Your task to perform on an android device: View the shopping cart on bestbuy.com. Add "usb-a" to the cart on bestbuy.com Image 0: 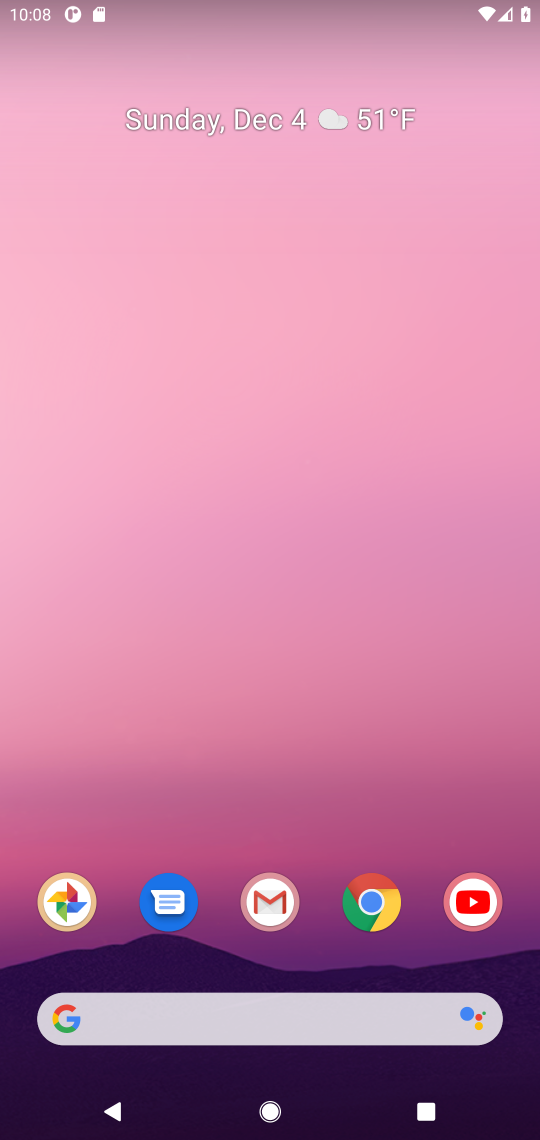
Step 0: click (368, 901)
Your task to perform on an android device: View the shopping cart on bestbuy.com. Add "usb-a" to the cart on bestbuy.com Image 1: 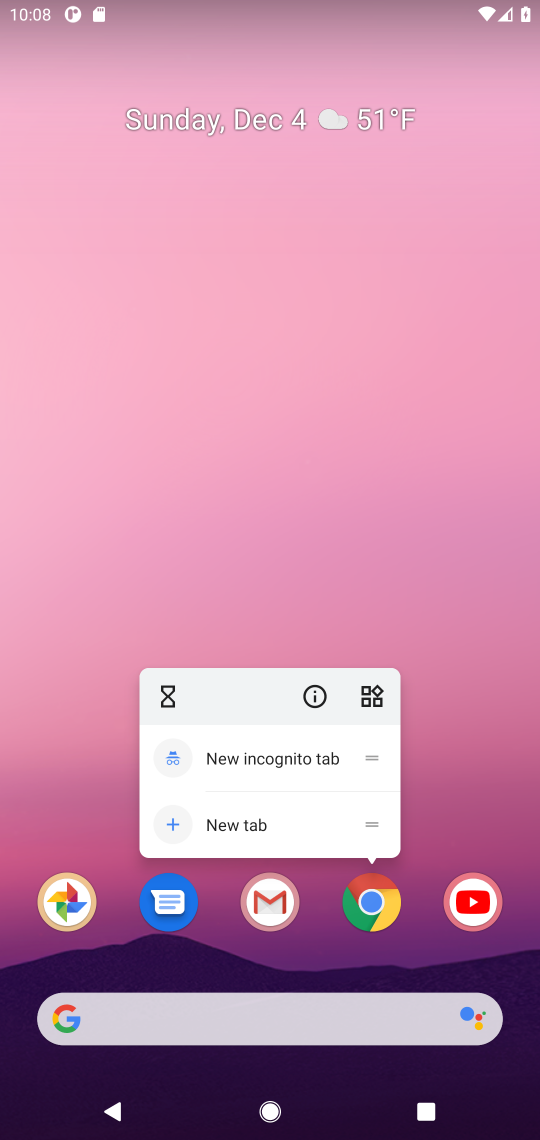
Step 1: click (382, 908)
Your task to perform on an android device: View the shopping cart on bestbuy.com. Add "usb-a" to the cart on bestbuy.com Image 2: 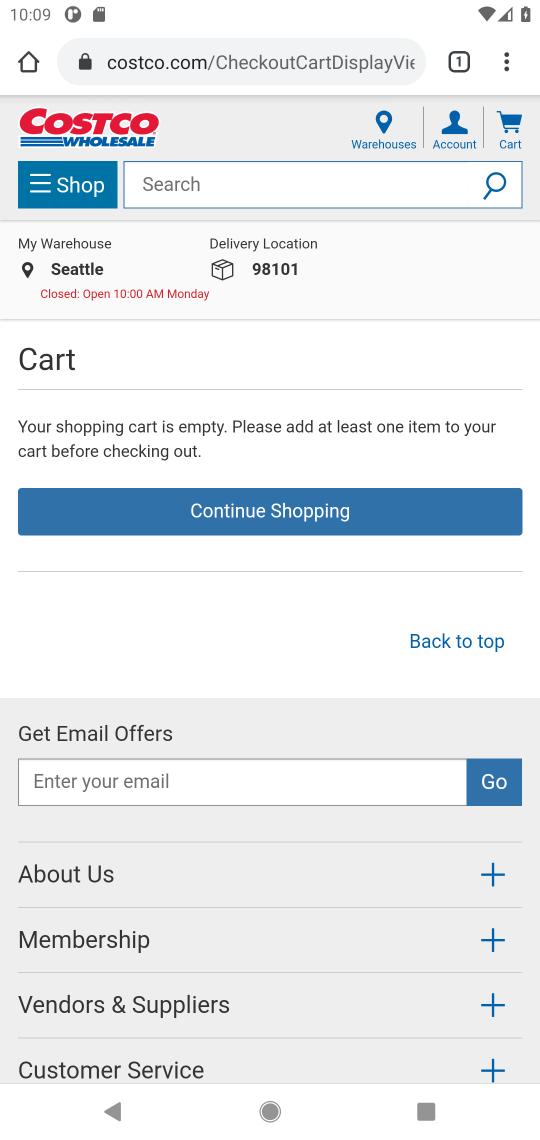
Step 2: click (494, 131)
Your task to perform on an android device: View the shopping cart on bestbuy.com. Add "usb-a" to the cart on bestbuy.com Image 3: 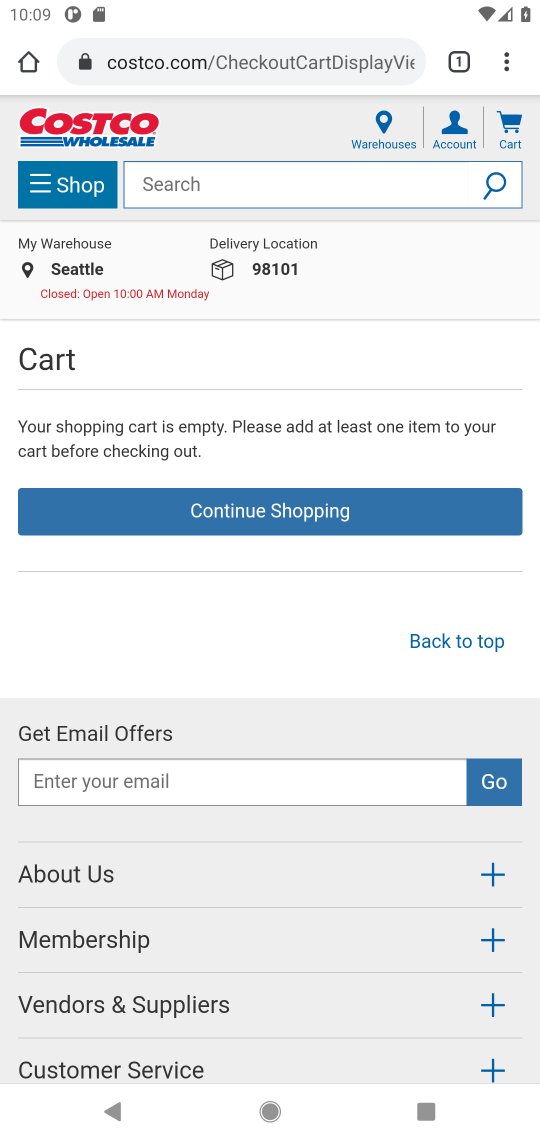
Step 3: click (260, 52)
Your task to perform on an android device: View the shopping cart on bestbuy.com. Add "usb-a" to the cart on bestbuy.com Image 4: 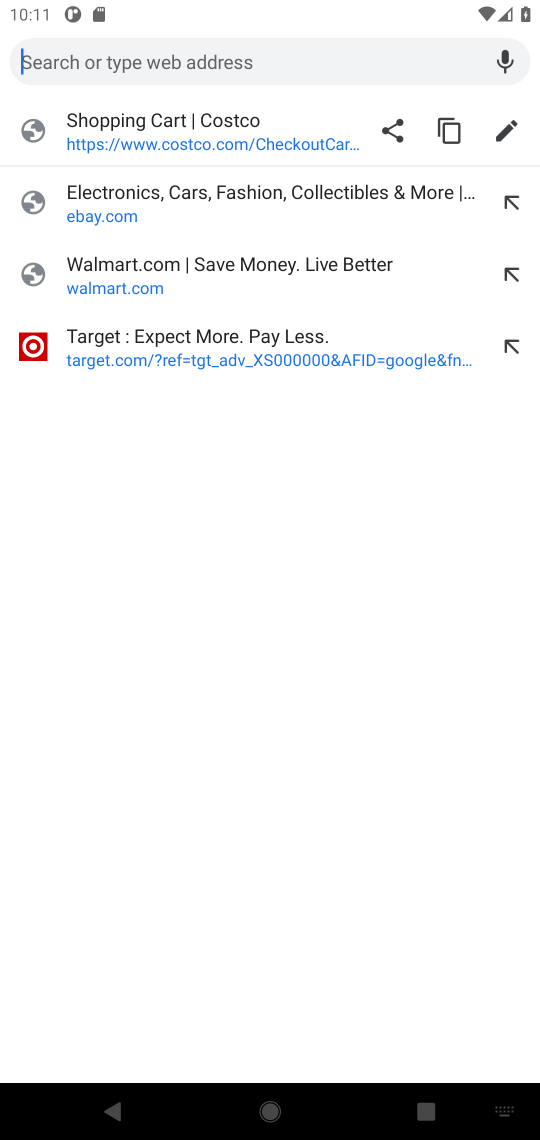
Step 4: type "bestbuy"
Your task to perform on an android device: View the shopping cart on bestbuy.com. Add "usb-a" to the cart on bestbuy.com Image 5: 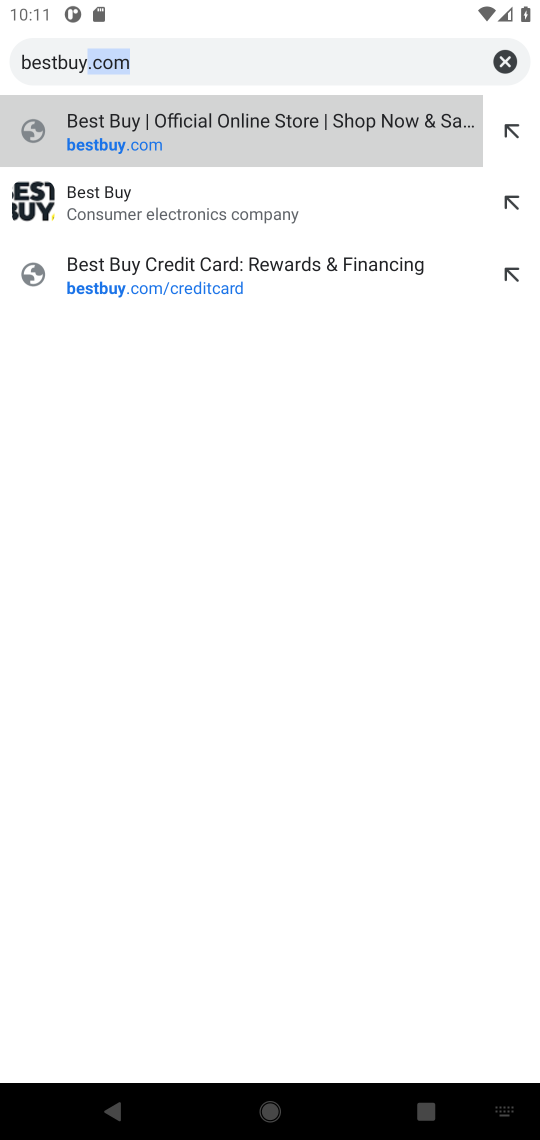
Step 5: click (182, 150)
Your task to perform on an android device: View the shopping cart on bestbuy.com. Add "usb-a" to the cart on bestbuy.com Image 6: 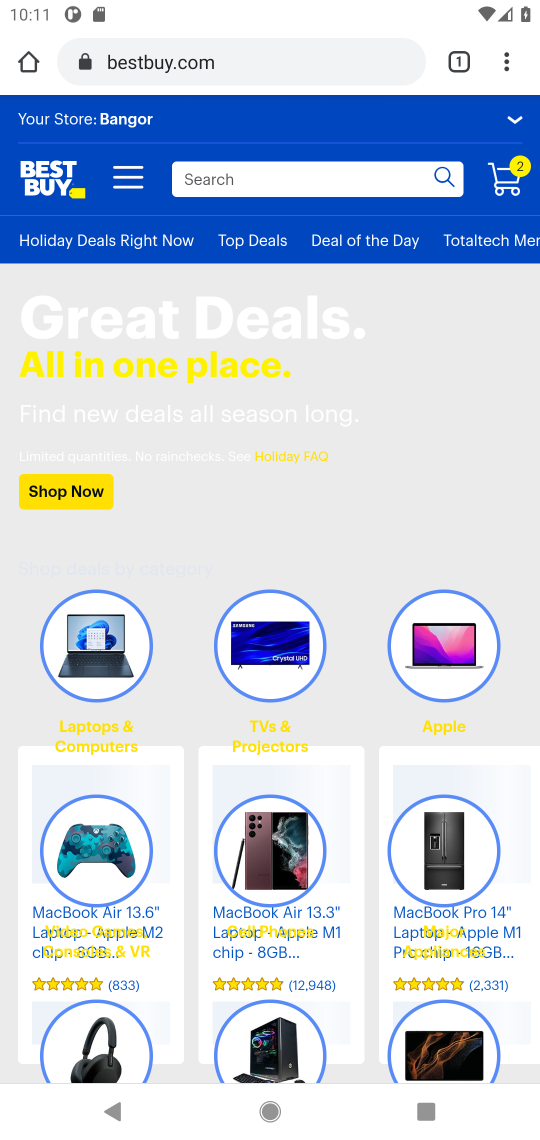
Step 6: click (523, 172)
Your task to perform on an android device: View the shopping cart on bestbuy.com. Add "usb-a" to the cart on bestbuy.com Image 7: 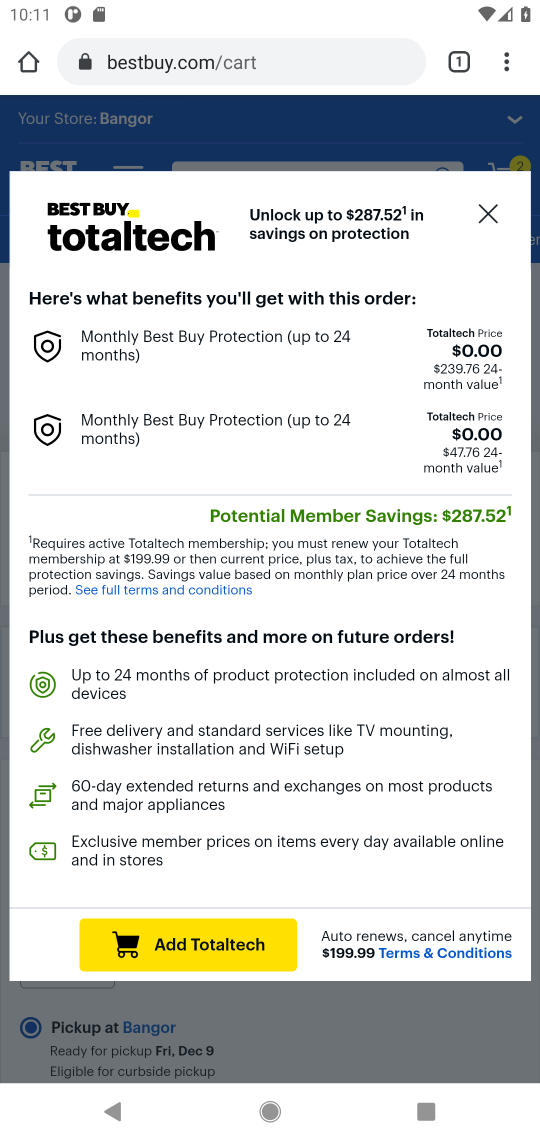
Step 7: click (485, 225)
Your task to perform on an android device: View the shopping cart on bestbuy.com. Add "usb-a" to the cart on bestbuy.com Image 8: 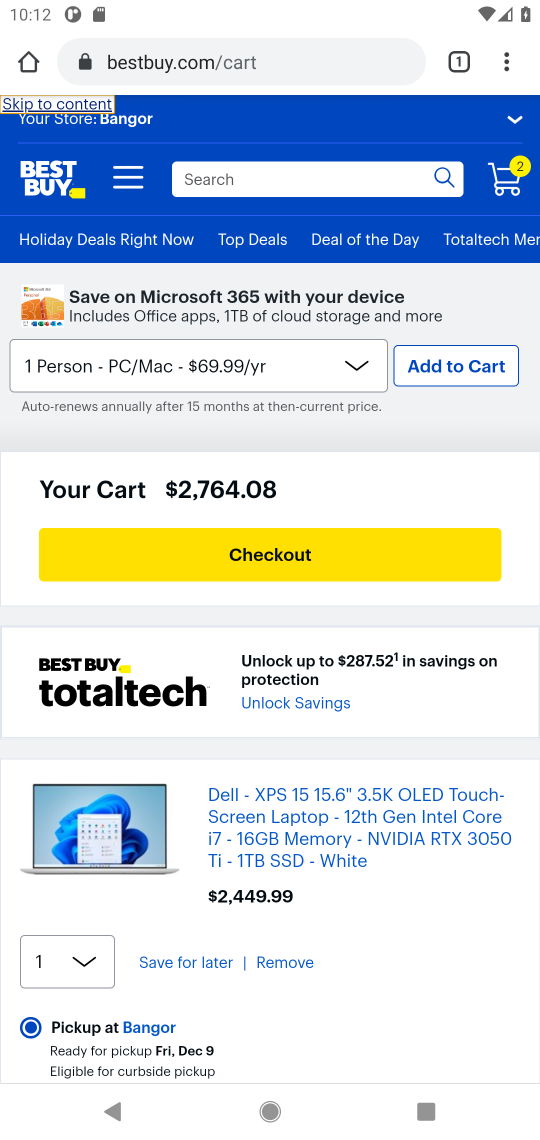
Step 8: click (243, 185)
Your task to perform on an android device: View the shopping cart on bestbuy.com. Add "usb-a" to the cart on bestbuy.com Image 9: 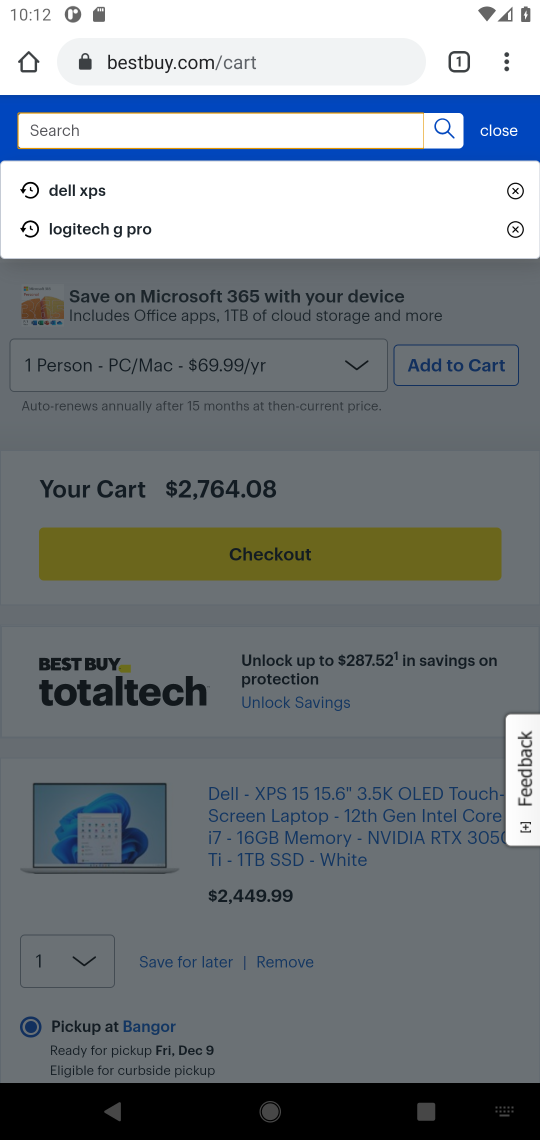
Step 9: type "usb-a"
Your task to perform on an android device: View the shopping cart on bestbuy.com. Add "usb-a" to the cart on bestbuy.com Image 10: 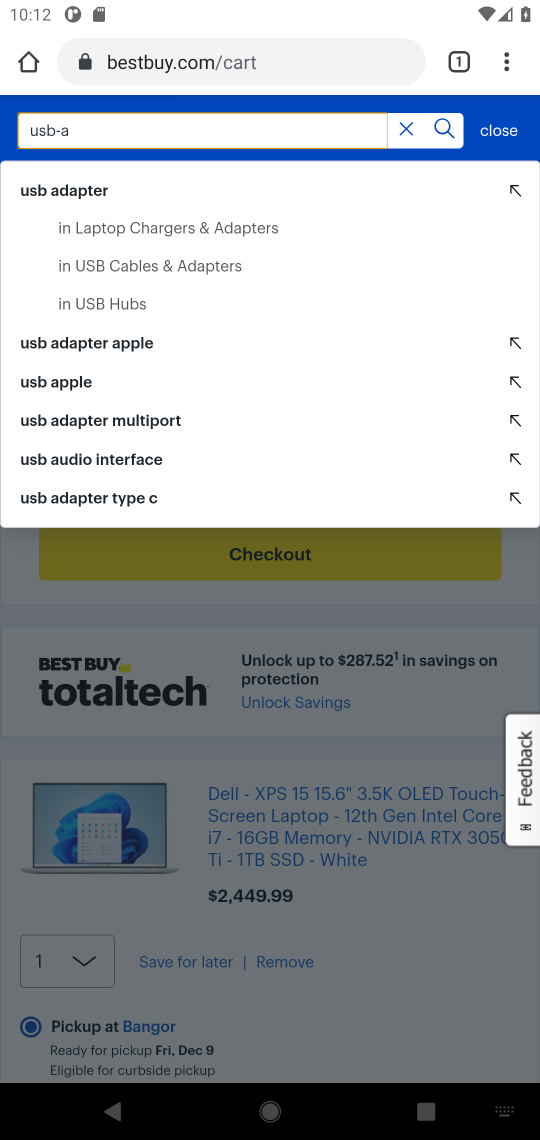
Step 10: click (452, 127)
Your task to perform on an android device: View the shopping cart on bestbuy.com. Add "usb-a" to the cart on bestbuy.com Image 11: 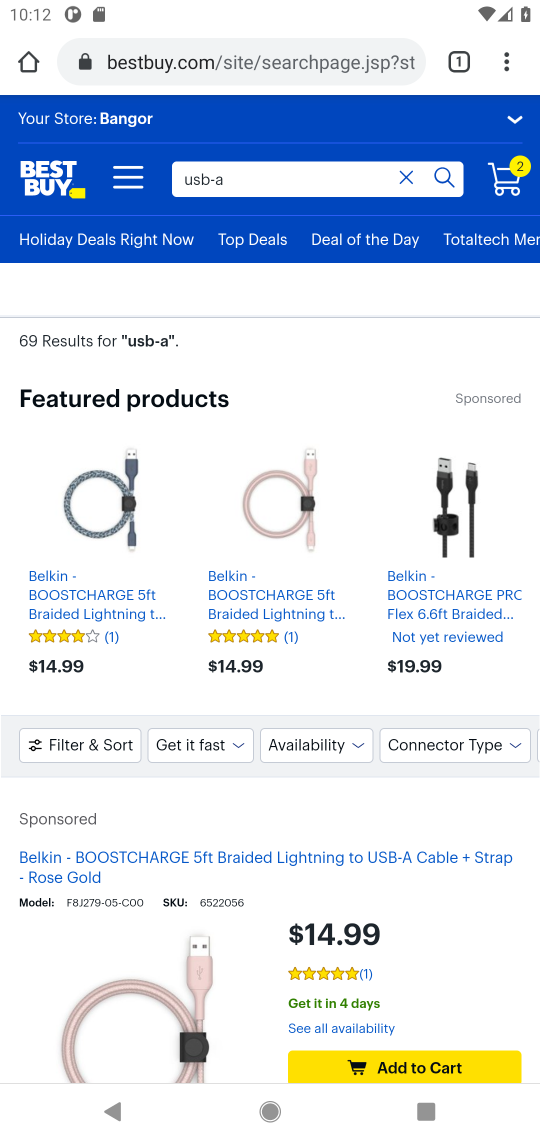
Step 11: drag from (356, 896) to (446, 243)
Your task to perform on an android device: View the shopping cart on bestbuy.com. Add "usb-a" to the cart on bestbuy.com Image 12: 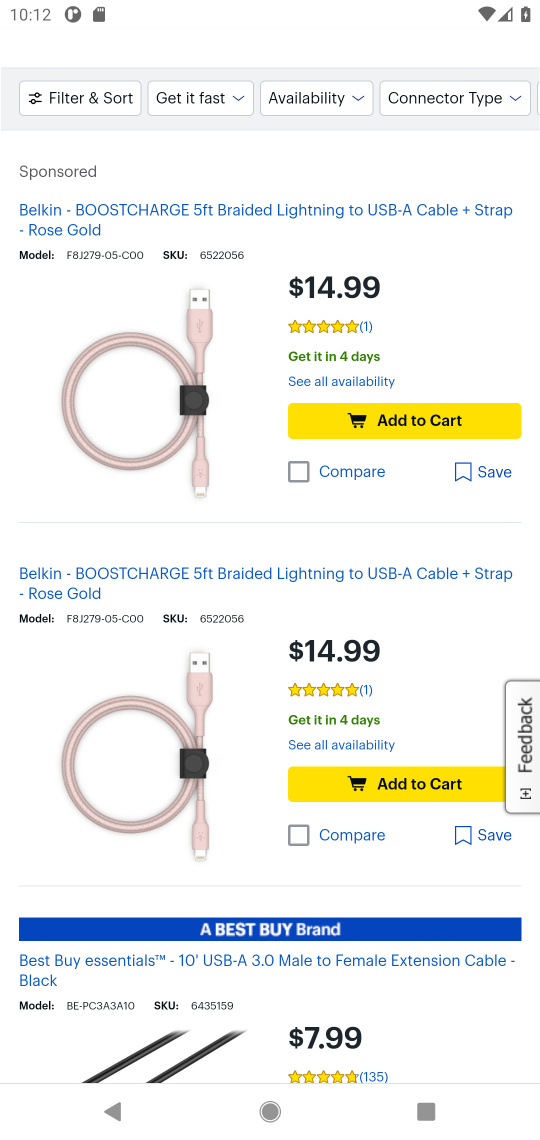
Step 12: click (441, 407)
Your task to perform on an android device: View the shopping cart on bestbuy.com. Add "usb-a" to the cart on bestbuy.com Image 13: 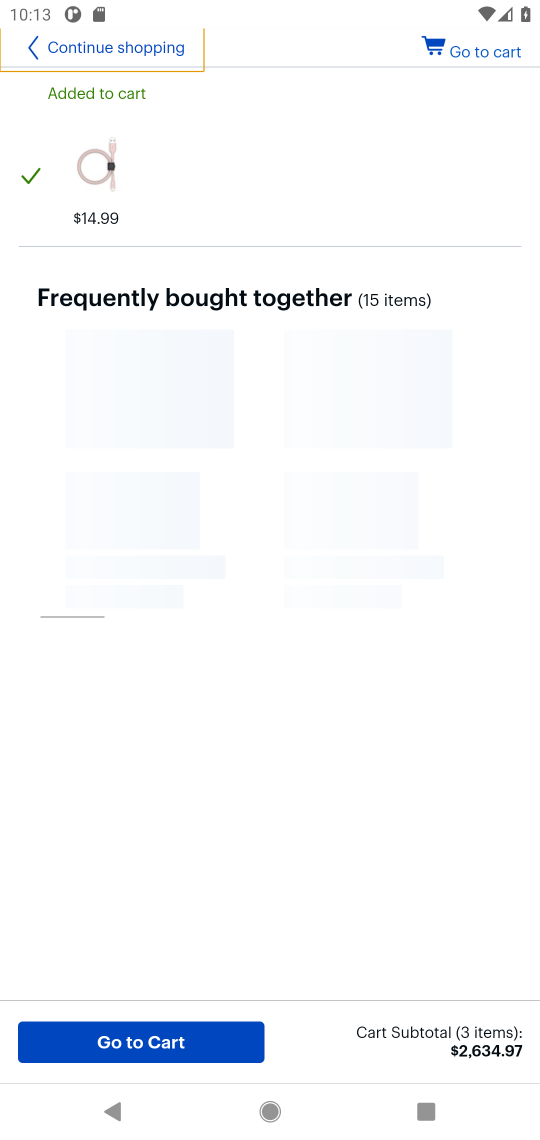
Step 13: task complete